Your task to perform on an android device: turn notification dots off Image 0: 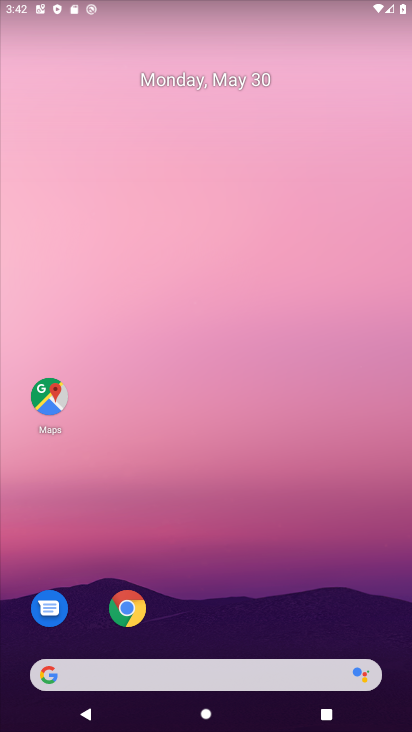
Step 0: drag from (240, 559) to (232, 176)
Your task to perform on an android device: turn notification dots off Image 1: 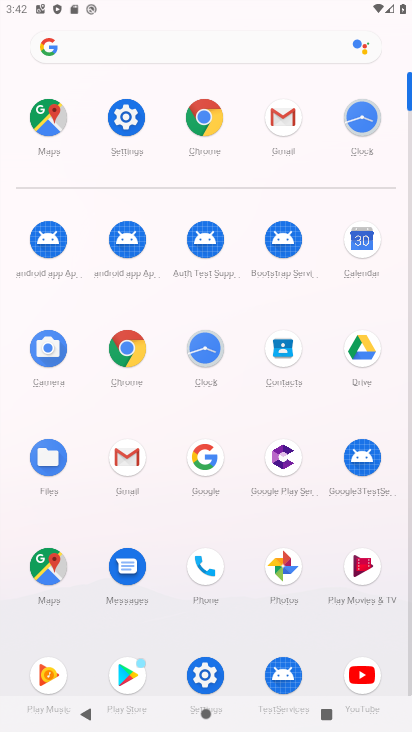
Step 1: click (125, 109)
Your task to perform on an android device: turn notification dots off Image 2: 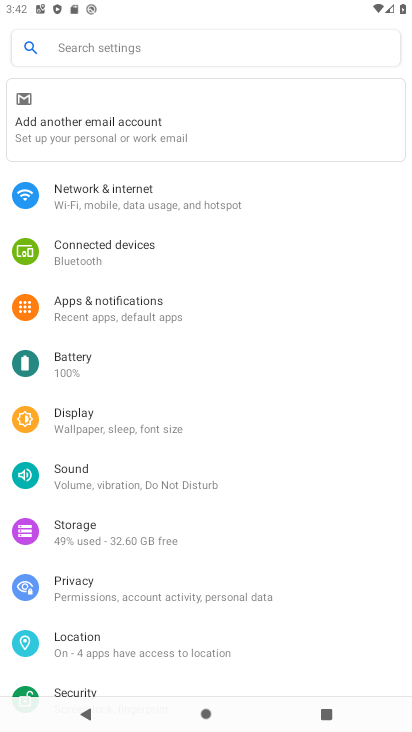
Step 2: click (176, 43)
Your task to perform on an android device: turn notification dots off Image 3: 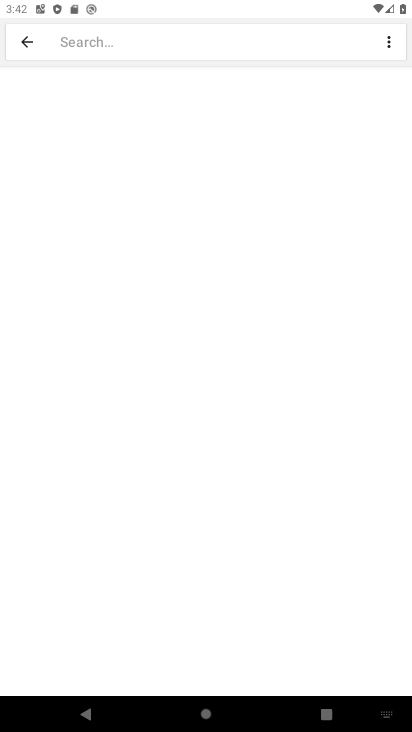
Step 3: click (197, 39)
Your task to perform on an android device: turn notification dots off Image 4: 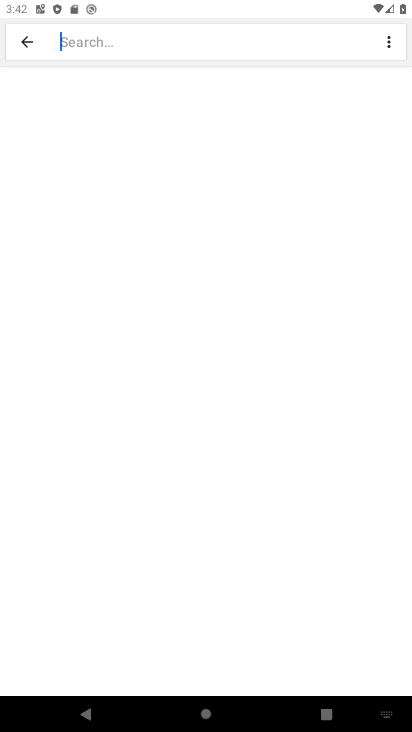
Step 4: type "notification dots "
Your task to perform on an android device: turn notification dots off Image 5: 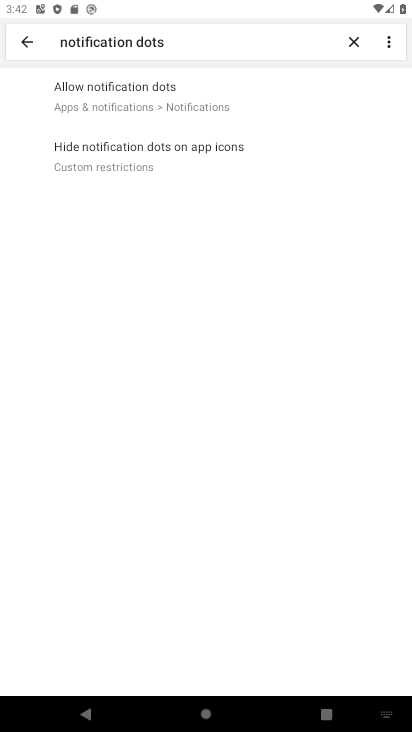
Step 5: click (125, 89)
Your task to perform on an android device: turn notification dots off Image 6: 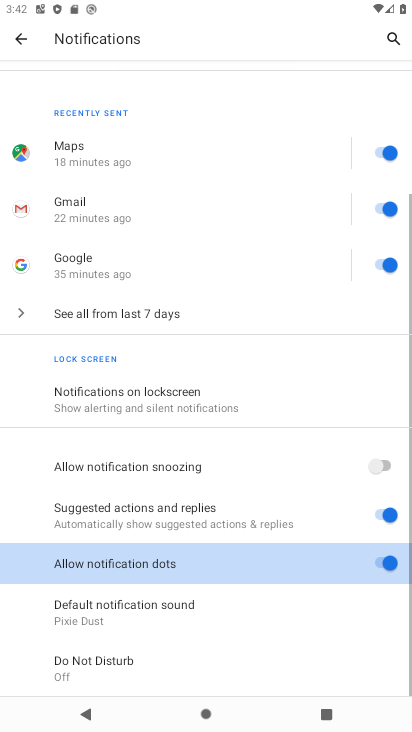
Step 6: click (376, 552)
Your task to perform on an android device: turn notification dots off Image 7: 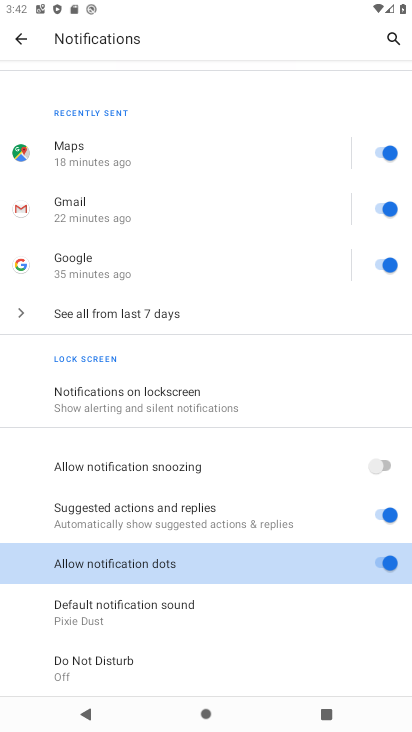
Step 7: click (378, 563)
Your task to perform on an android device: turn notification dots off Image 8: 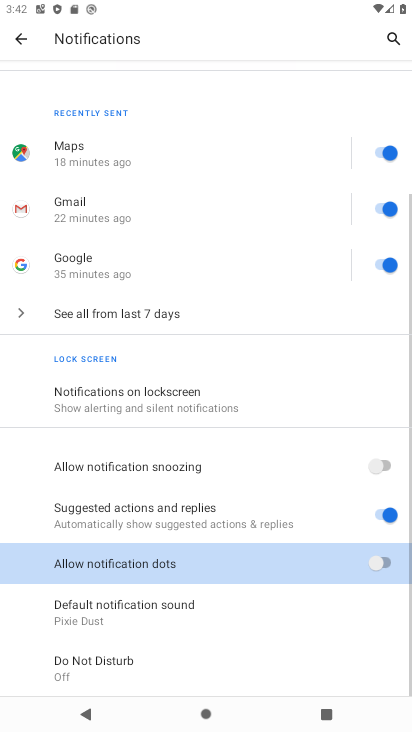
Step 8: task complete